Your task to perform on an android device: toggle notification dots Image 0: 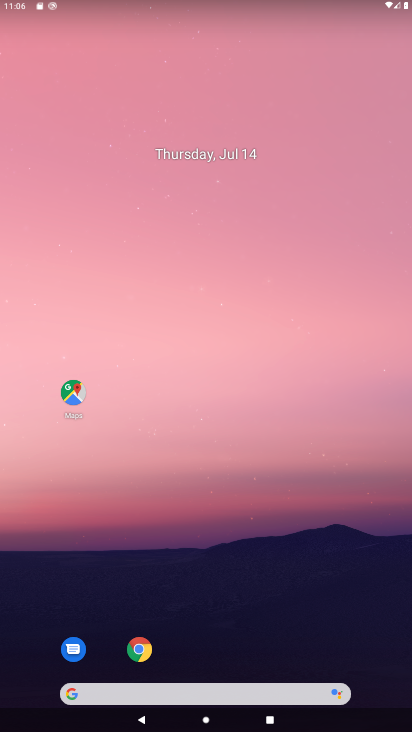
Step 0: drag from (319, 653) to (229, 159)
Your task to perform on an android device: toggle notification dots Image 1: 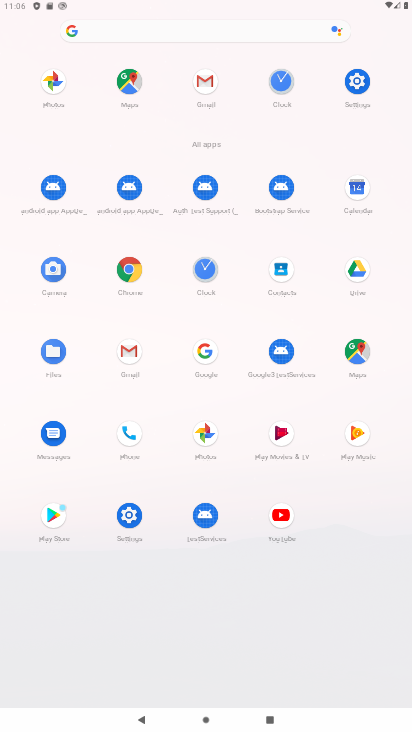
Step 1: click (362, 88)
Your task to perform on an android device: toggle notification dots Image 2: 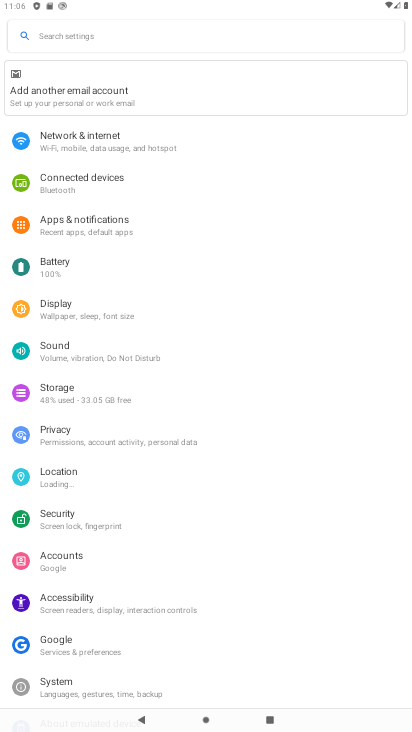
Step 2: click (195, 223)
Your task to perform on an android device: toggle notification dots Image 3: 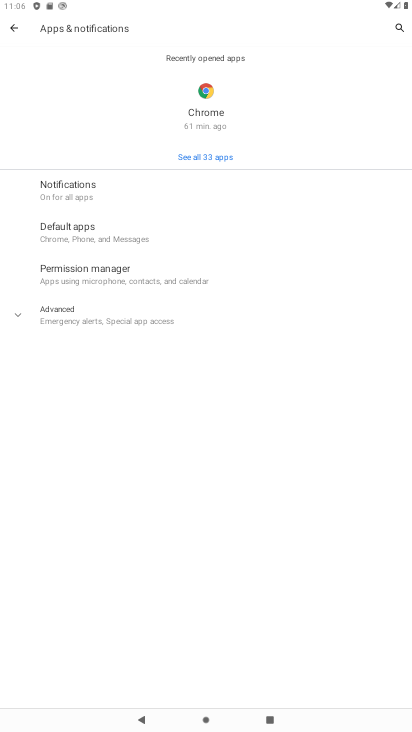
Step 3: click (166, 196)
Your task to perform on an android device: toggle notification dots Image 4: 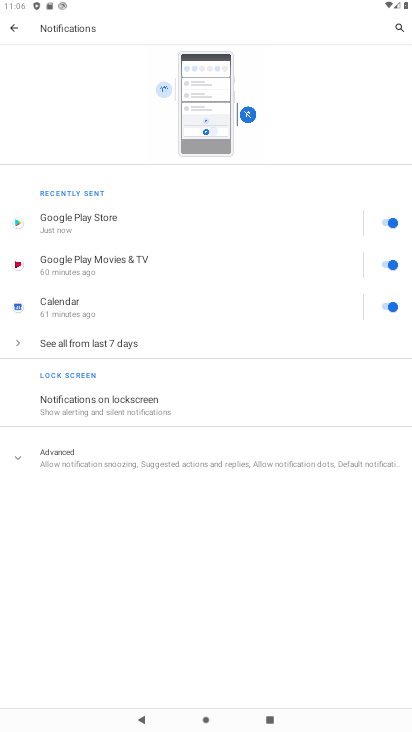
Step 4: click (214, 467)
Your task to perform on an android device: toggle notification dots Image 5: 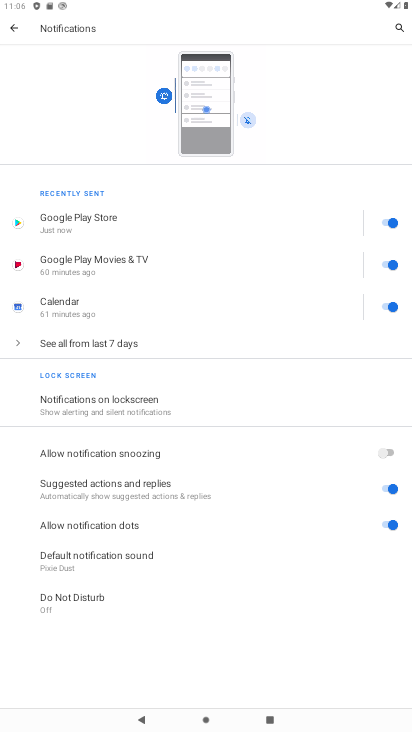
Step 5: click (383, 532)
Your task to perform on an android device: toggle notification dots Image 6: 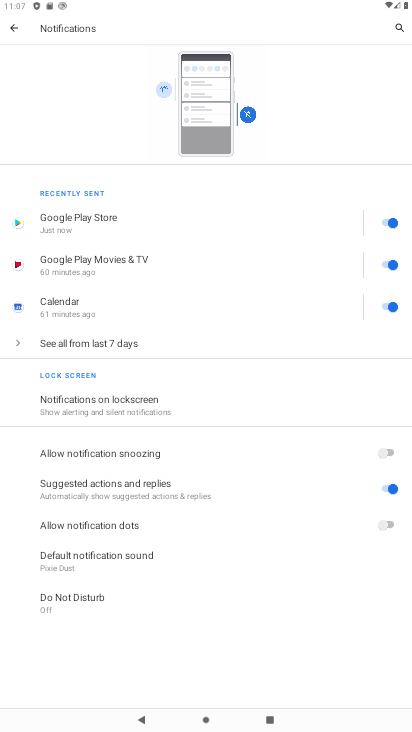
Step 6: task complete